Your task to perform on an android device: check data usage Image 0: 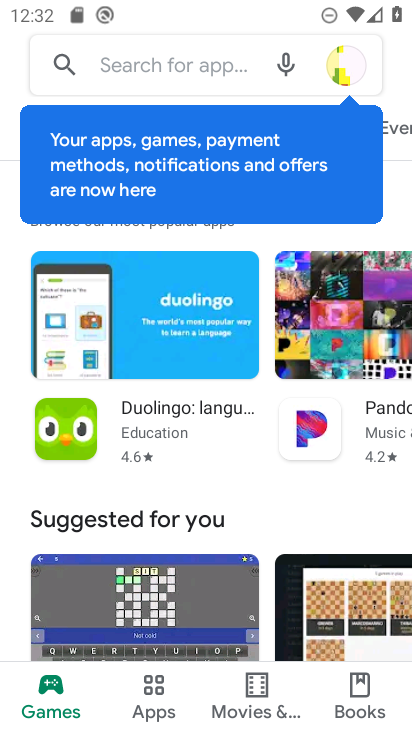
Step 0: press home button
Your task to perform on an android device: check data usage Image 1: 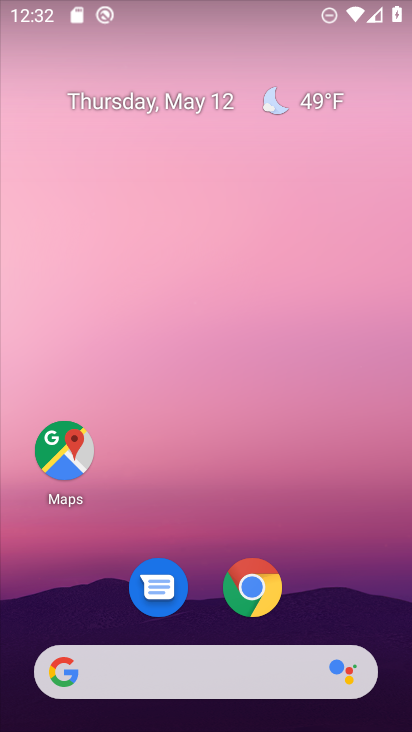
Step 1: drag from (297, 600) to (346, 339)
Your task to perform on an android device: check data usage Image 2: 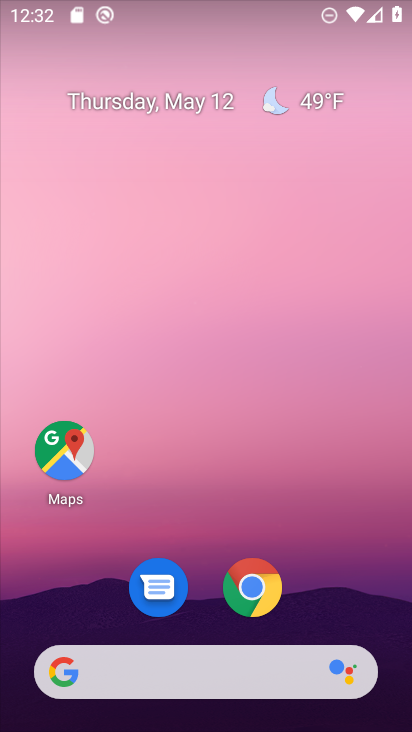
Step 2: drag from (287, 609) to (344, 314)
Your task to perform on an android device: check data usage Image 3: 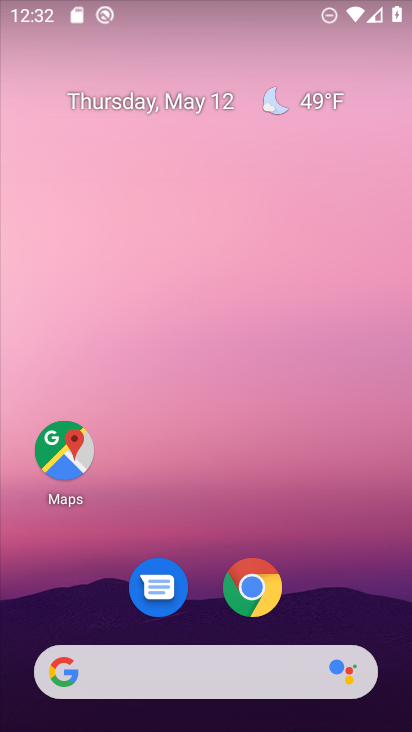
Step 3: drag from (266, 622) to (334, 123)
Your task to perform on an android device: check data usage Image 4: 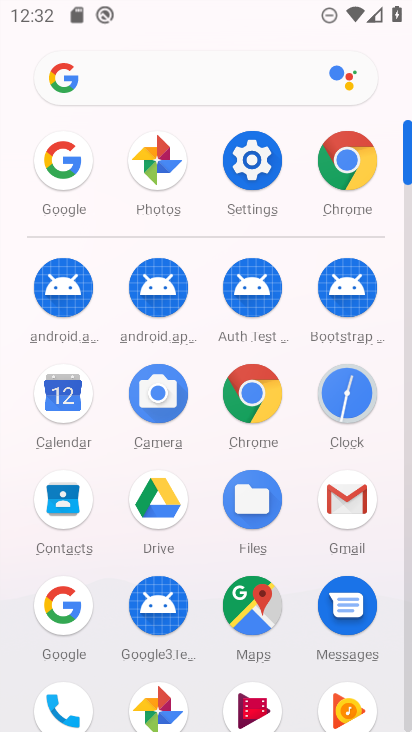
Step 4: click (261, 144)
Your task to perform on an android device: check data usage Image 5: 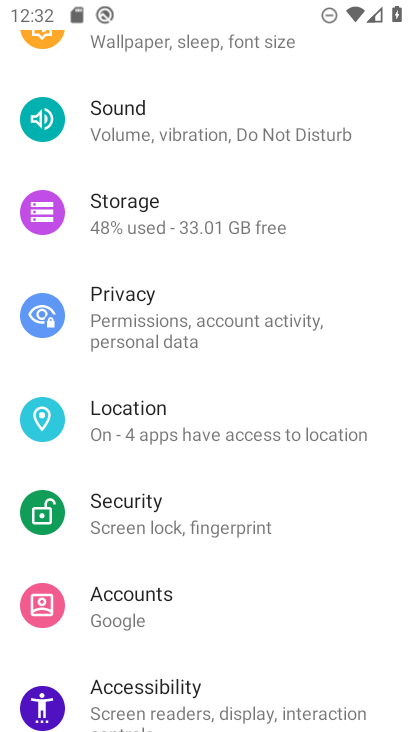
Step 5: drag from (166, 236) to (173, 520)
Your task to perform on an android device: check data usage Image 6: 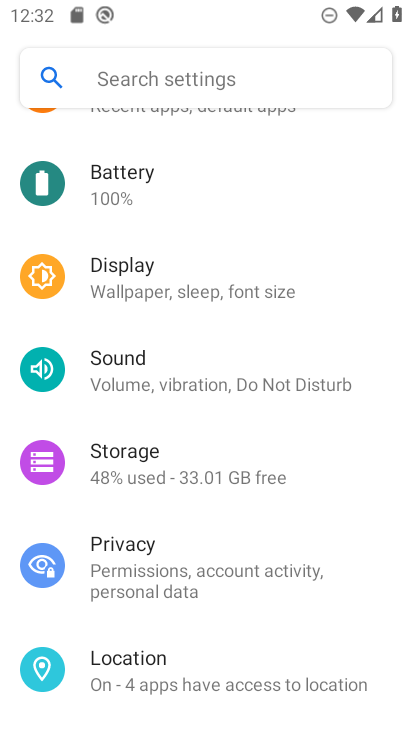
Step 6: drag from (155, 176) to (155, 434)
Your task to perform on an android device: check data usage Image 7: 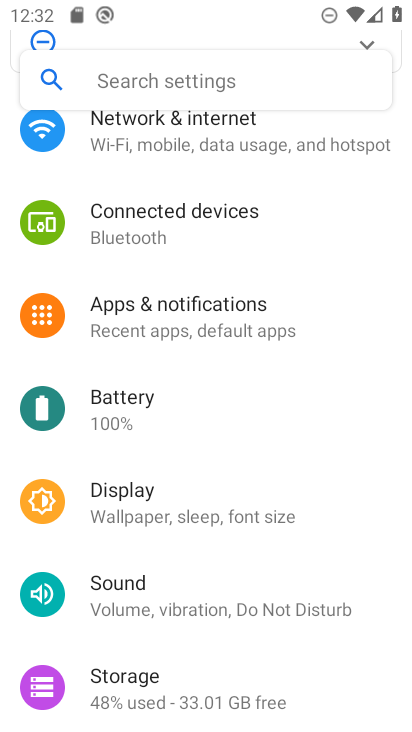
Step 7: click (159, 130)
Your task to perform on an android device: check data usage Image 8: 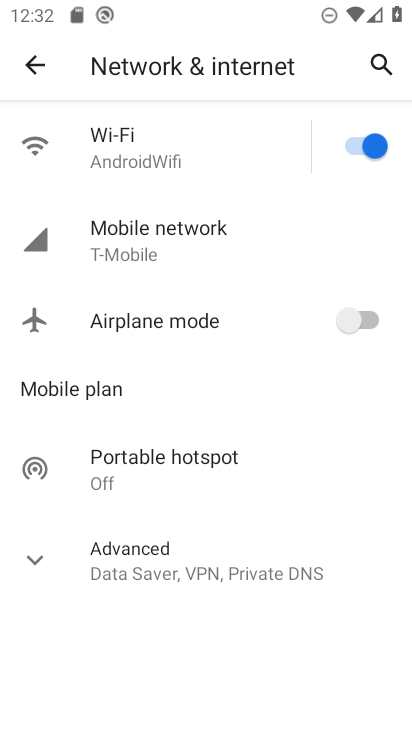
Step 8: click (135, 250)
Your task to perform on an android device: check data usage Image 9: 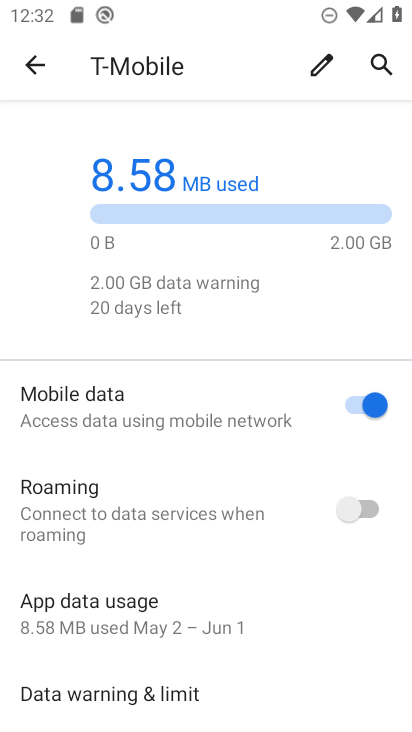
Step 9: drag from (119, 580) to (151, 425)
Your task to perform on an android device: check data usage Image 10: 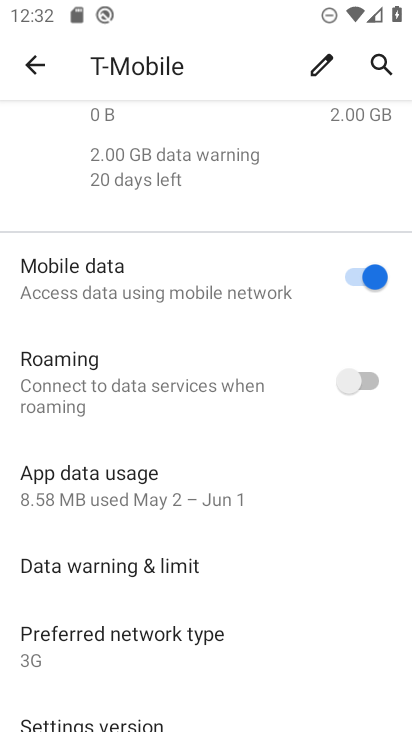
Step 10: click (94, 470)
Your task to perform on an android device: check data usage Image 11: 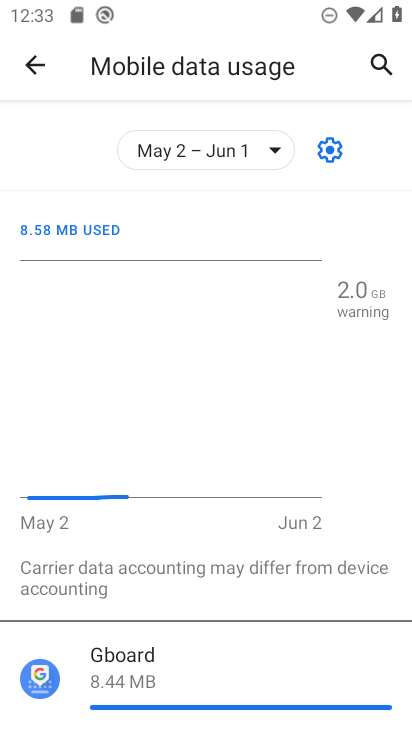
Step 11: task complete